Your task to perform on an android device: toggle show notifications on the lock screen Image 0: 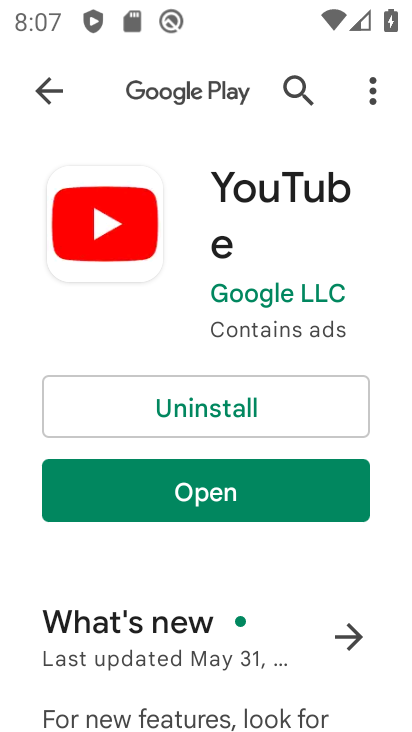
Step 0: press home button
Your task to perform on an android device: toggle show notifications on the lock screen Image 1: 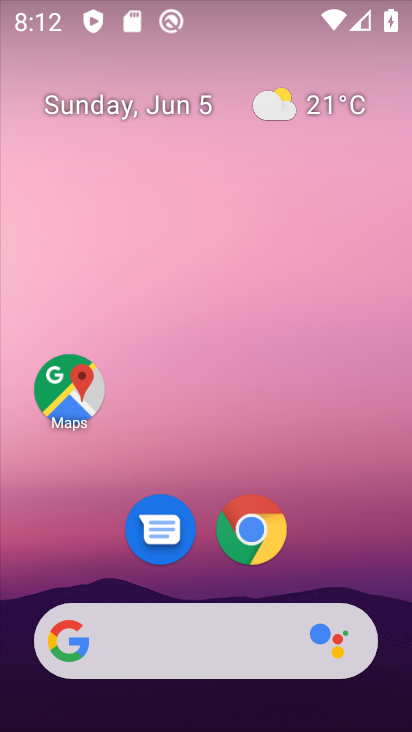
Step 1: drag from (233, 642) to (287, 117)
Your task to perform on an android device: toggle show notifications on the lock screen Image 2: 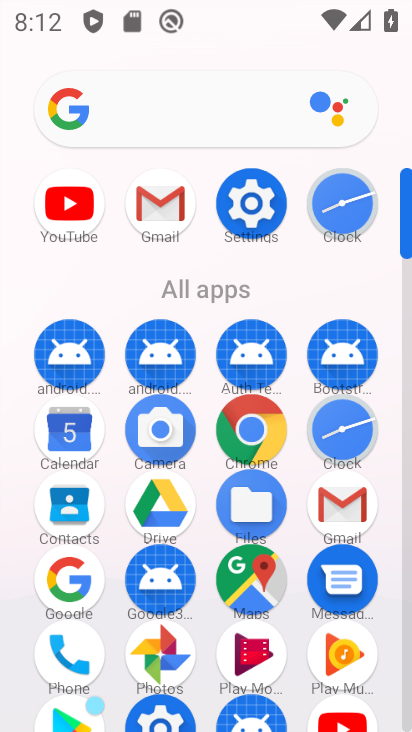
Step 2: click (256, 206)
Your task to perform on an android device: toggle show notifications on the lock screen Image 3: 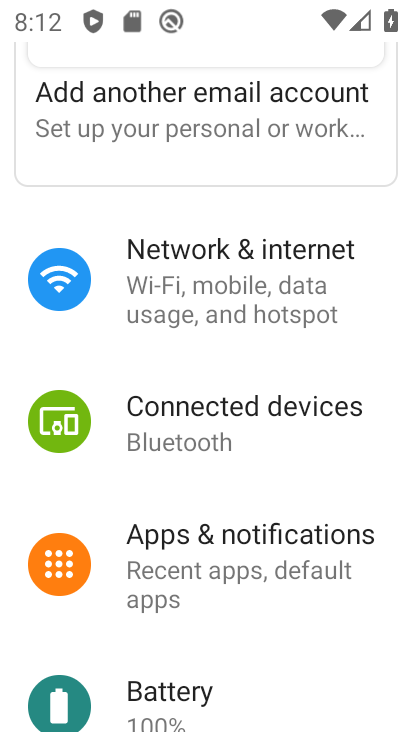
Step 3: click (250, 556)
Your task to perform on an android device: toggle show notifications on the lock screen Image 4: 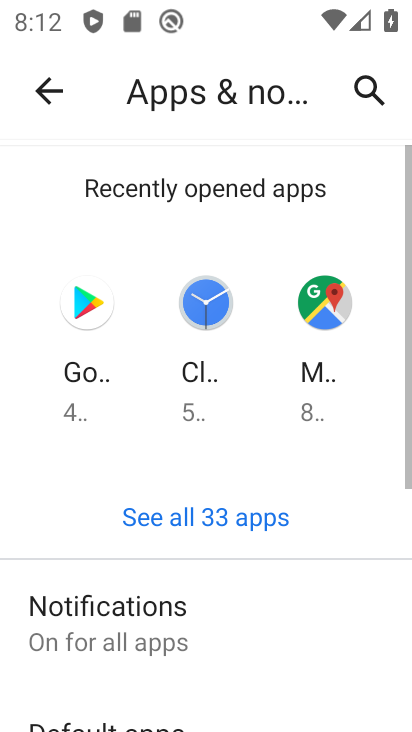
Step 4: click (199, 634)
Your task to perform on an android device: toggle show notifications on the lock screen Image 5: 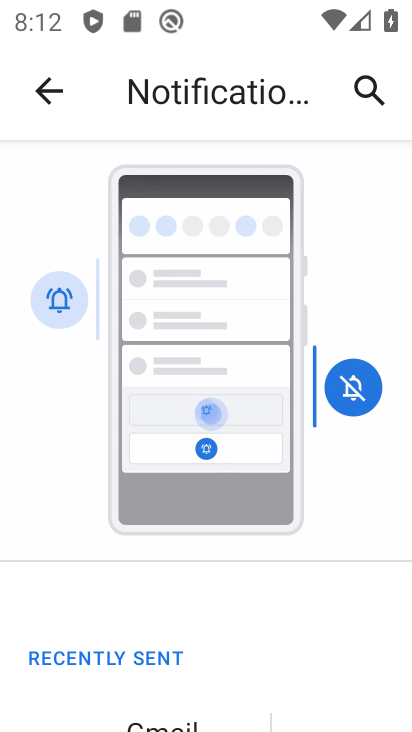
Step 5: drag from (216, 661) to (188, 58)
Your task to perform on an android device: toggle show notifications on the lock screen Image 6: 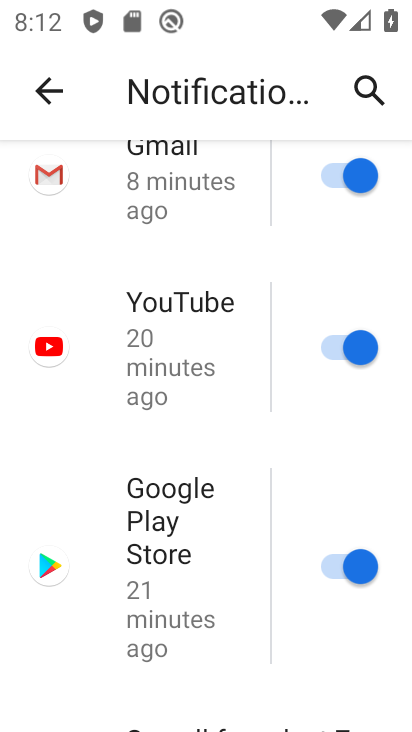
Step 6: drag from (189, 702) to (128, 162)
Your task to perform on an android device: toggle show notifications on the lock screen Image 7: 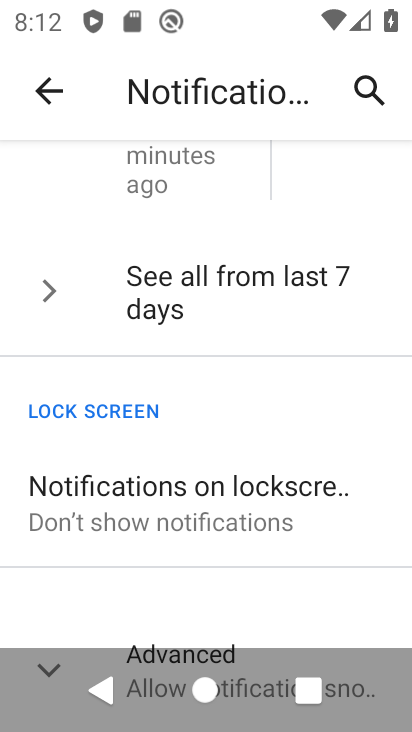
Step 7: click (149, 522)
Your task to perform on an android device: toggle show notifications on the lock screen Image 8: 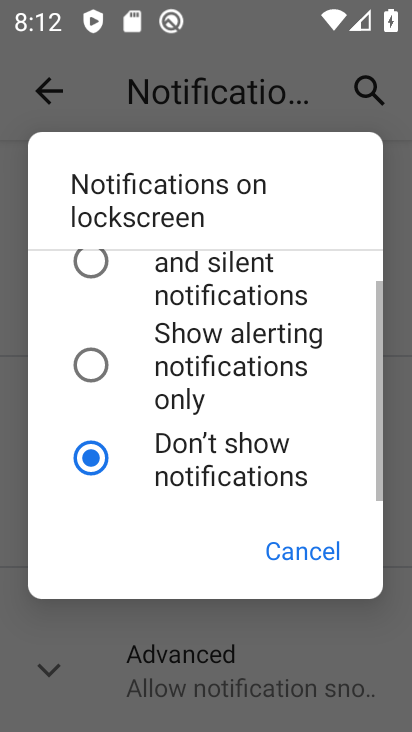
Step 8: click (165, 343)
Your task to perform on an android device: toggle show notifications on the lock screen Image 9: 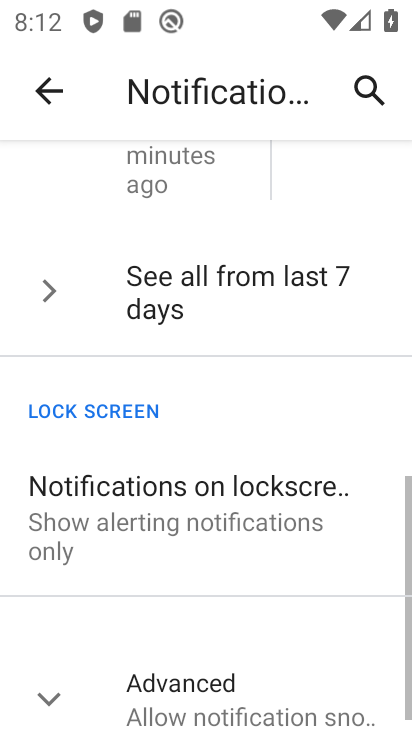
Step 9: task complete